Your task to perform on an android device: Open battery settings Image 0: 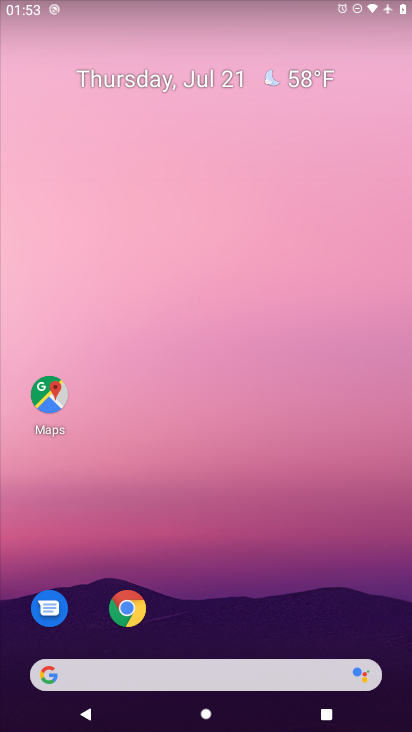
Step 0: drag from (214, 637) to (231, 130)
Your task to perform on an android device: Open battery settings Image 1: 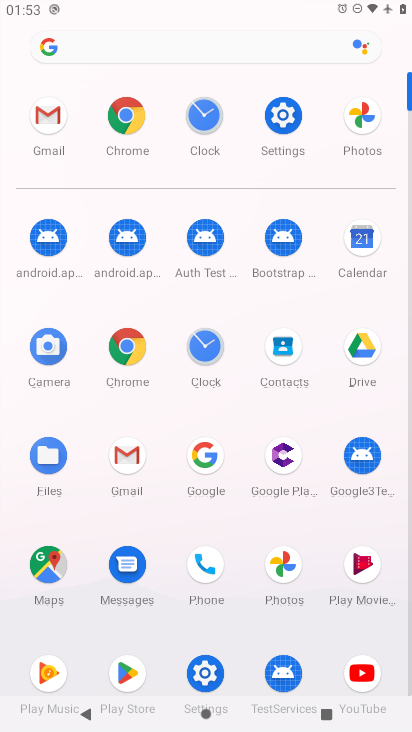
Step 1: click (282, 127)
Your task to perform on an android device: Open battery settings Image 2: 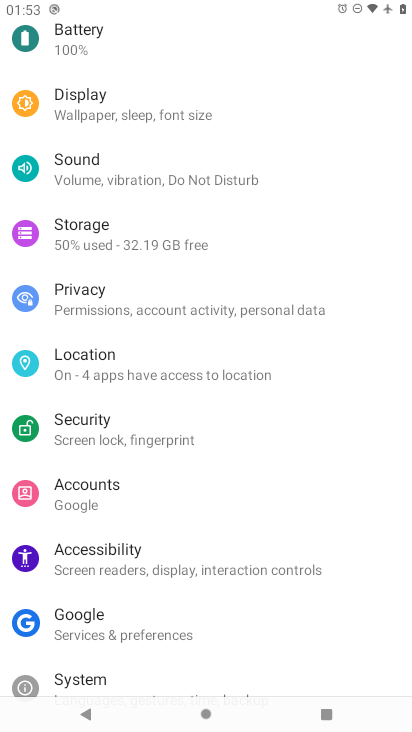
Step 2: click (81, 46)
Your task to perform on an android device: Open battery settings Image 3: 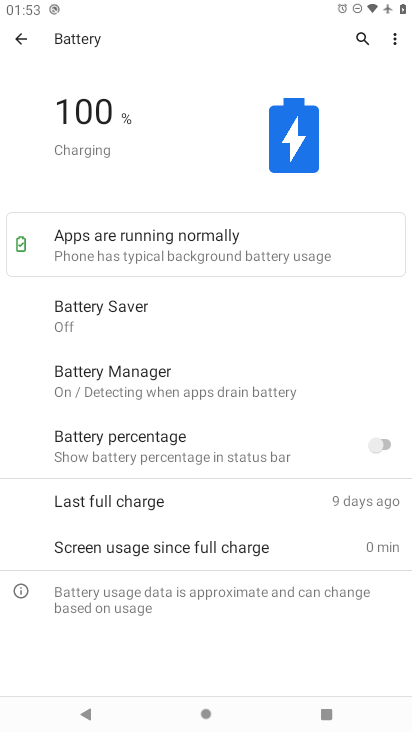
Step 3: task complete